Your task to perform on an android device: Open wifi settings Image 0: 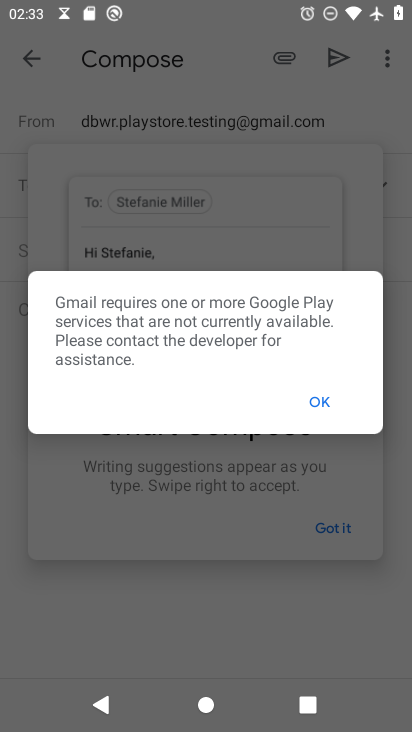
Step 0: press home button
Your task to perform on an android device: Open wifi settings Image 1: 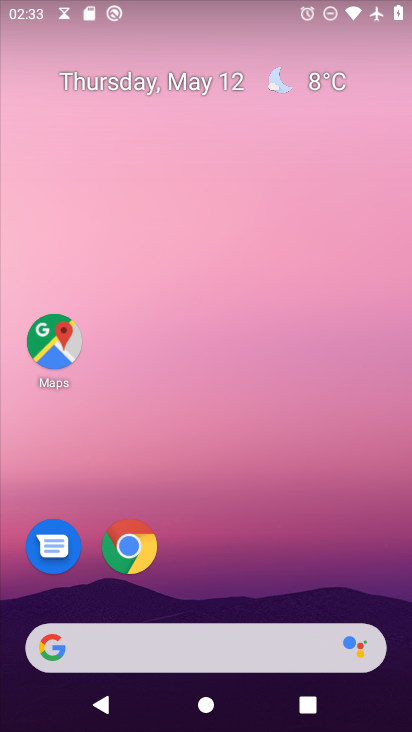
Step 1: drag from (115, 640) to (231, 87)
Your task to perform on an android device: Open wifi settings Image 2: 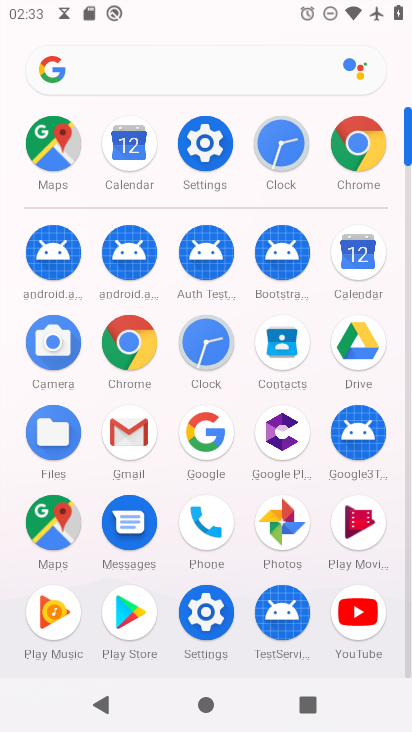
Step 2: click (210, 150)
Your task to perform on an android device: Open wifi settings Image 3: 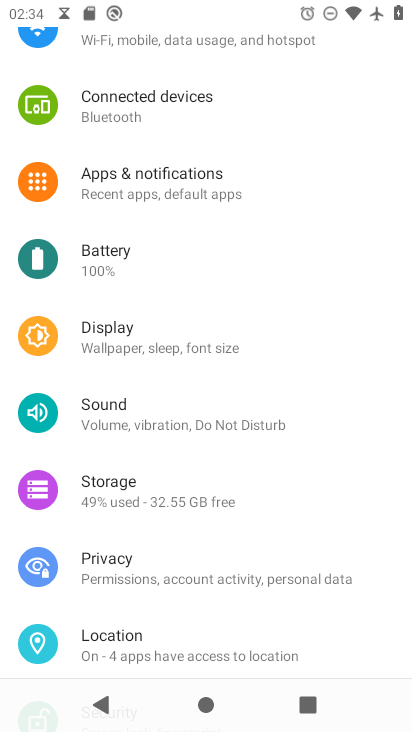
Step 3: drag from (315, 118) to (295, 520)
Your task to perform on an android device: Open wifi settings Image 4: 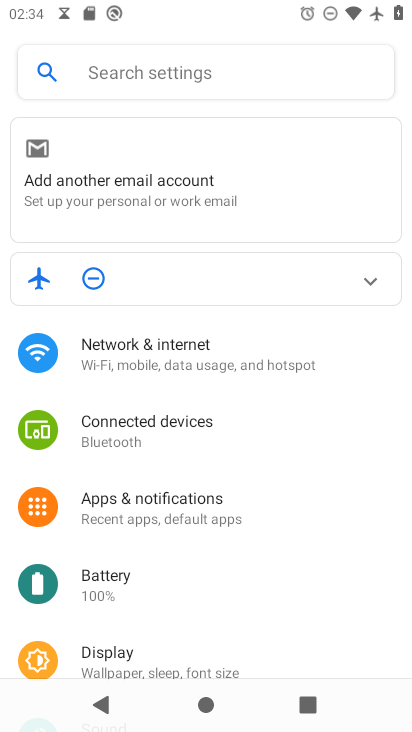
Step 4: click (174, 360)
Your task to perform on an android device: Open wifi settings Image 5: 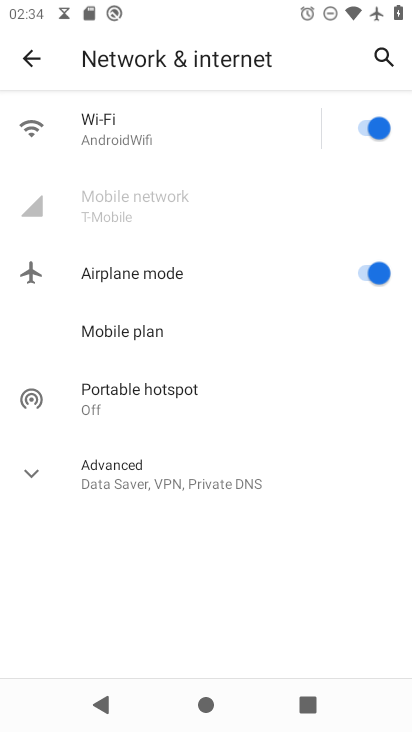
Step 5: click (111, 138)
Your task to perform on an android device: Open wifi settings Image 6: 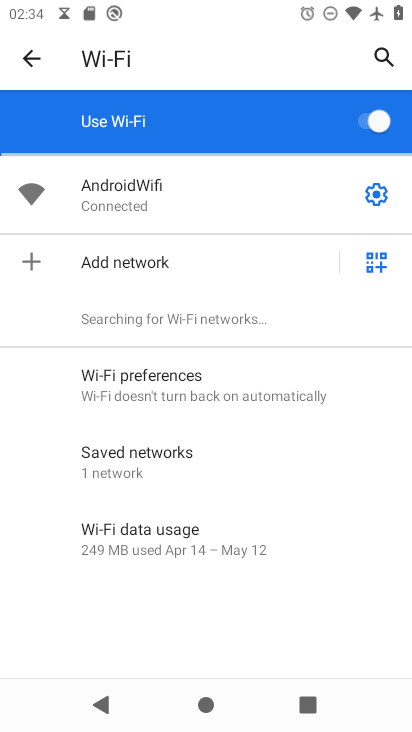
Step 6: task complete